Your task to perform on an android device: Open display settings Image 0: 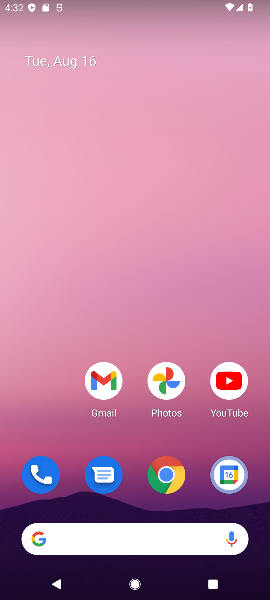
Step 0: drag from (206, 436) to (73, 64)
Your task to perform on an android device: Open display settings Image 1: 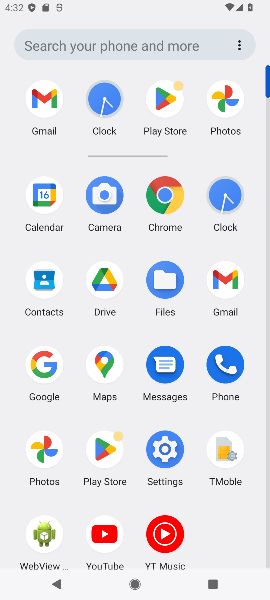
Step 1: click (159, 458)
Your task to perform on an android device: Open display settings Image 2: 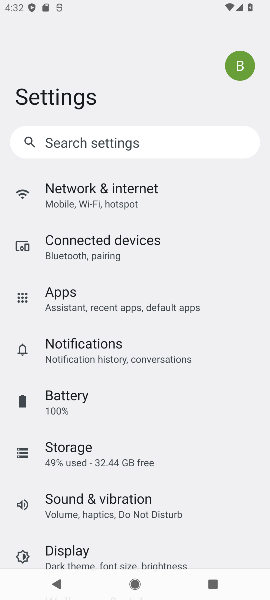
Step 2: click (72, 555)
Your task to perform on an android device: Open display settings Image 3: 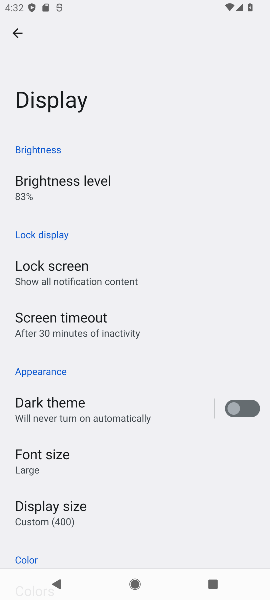
Step 3: task complete